Your task to perform on an android device: turn off smart reply in the gmail app Image 0: 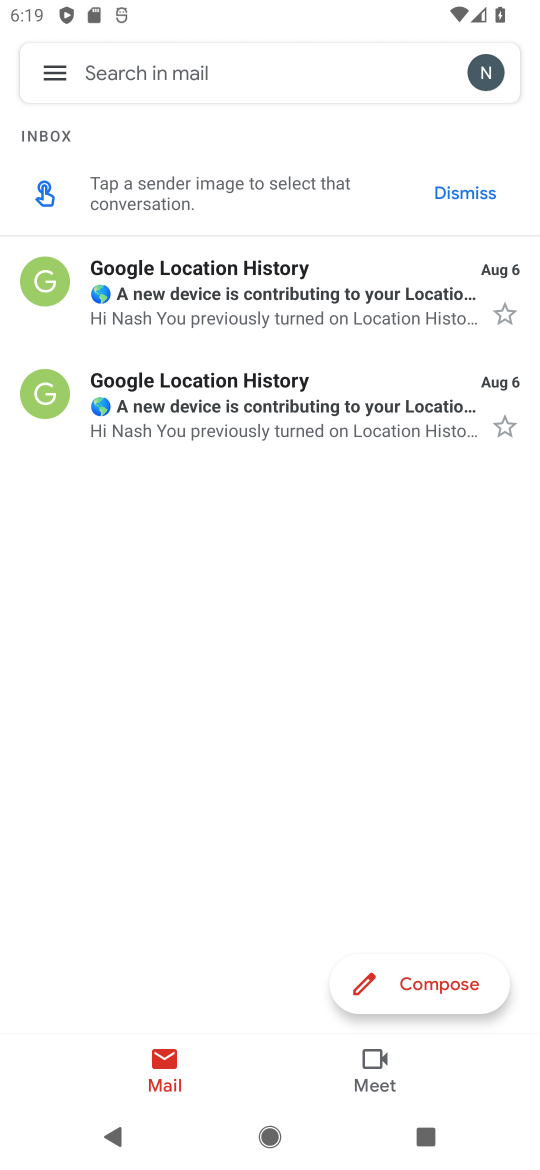
Step 0: press home button
Your task to perform on an android device: turn off smart reply in the gmail app Image 1: 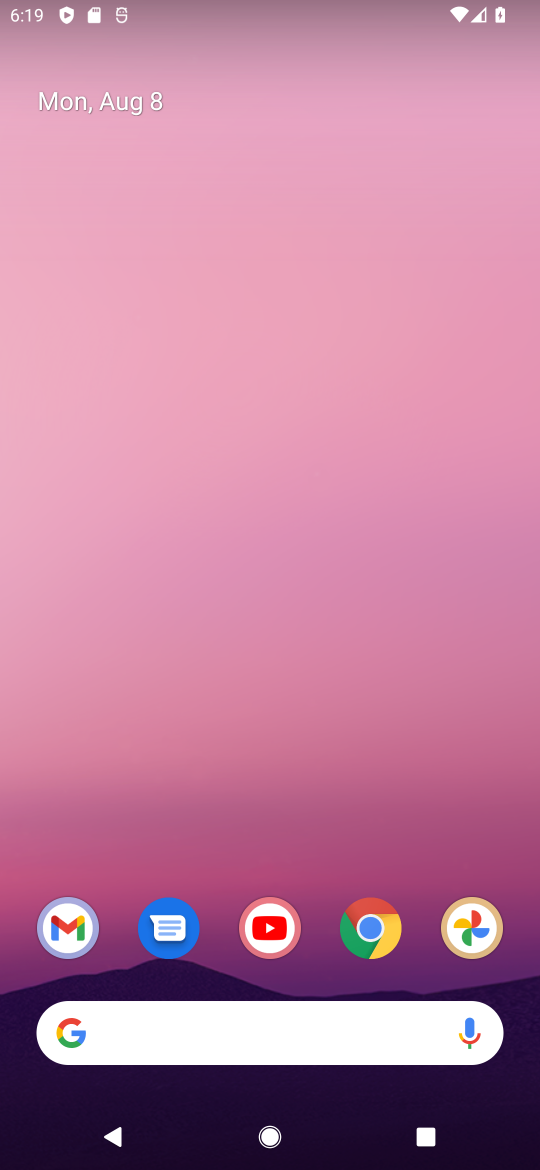
Step 1: click (60, 948)
Your task to perform on an android device: turn off smart reply in the gmail app Image 2: 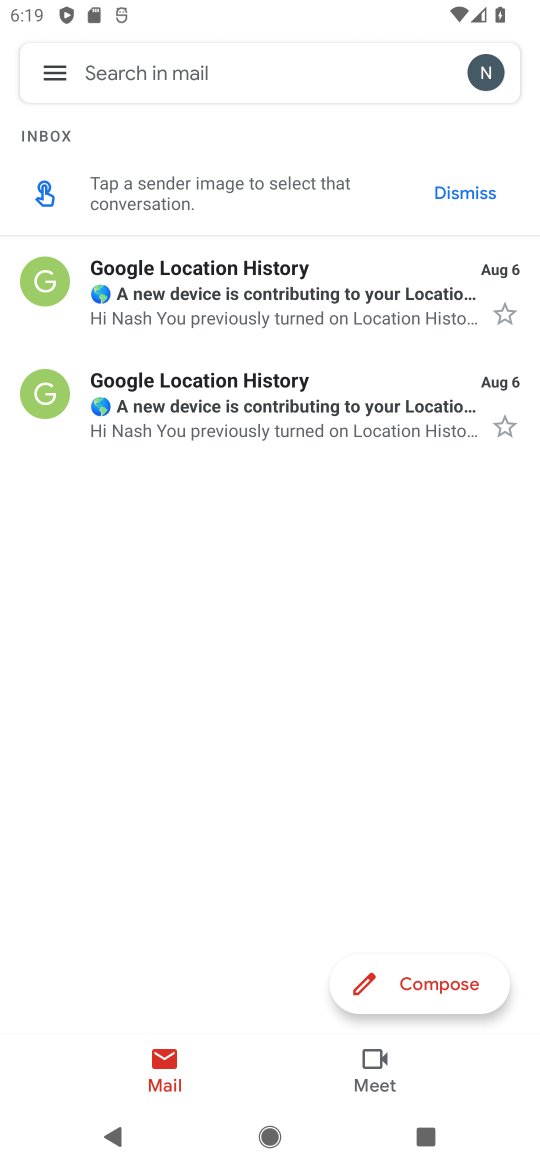
Step 2: click (52, 63)
Your task to perform on an android device: turn off smart reply in the gmail app Image 3: 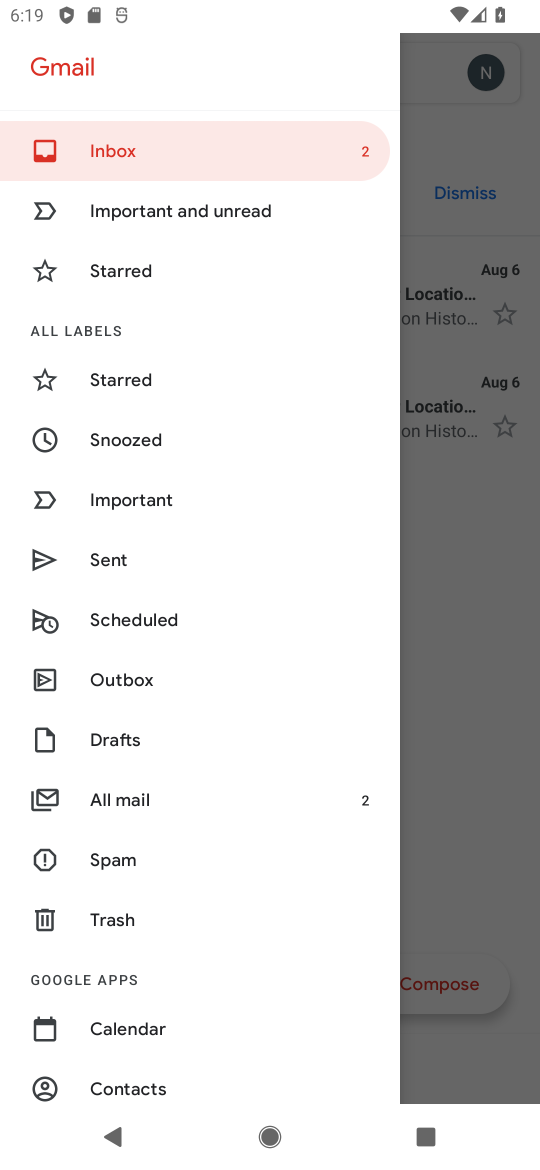
Step 3: drag from (172, 943) to (197, 658)
Your task to perform on an android device: turn off smart reply in the gmail app Image 4: 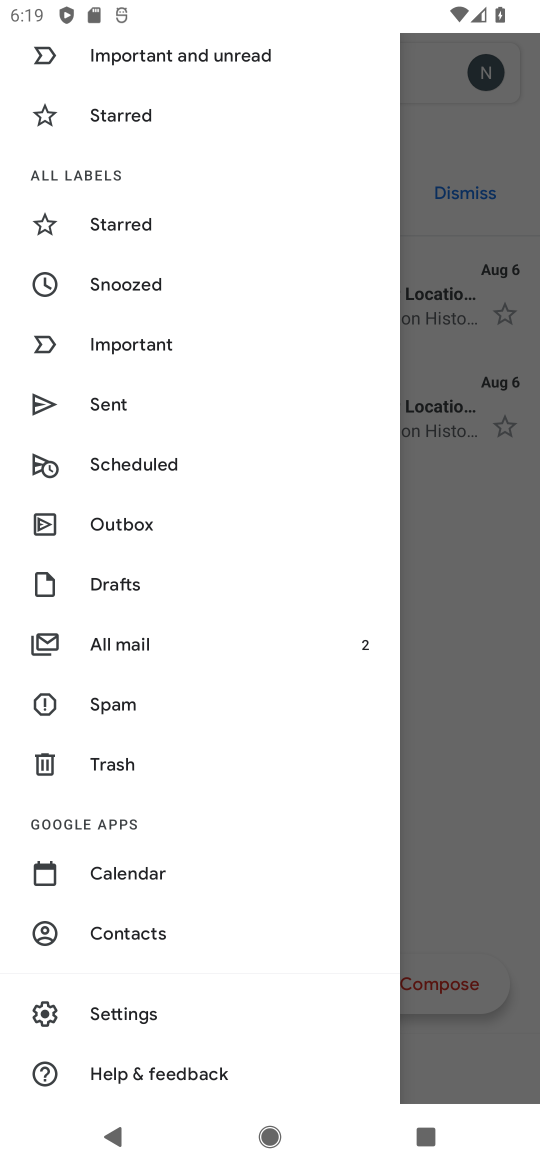
Step 4: click (123, 1006)
Your task to perform on an android device: turn off smart reply in the gmail app Image 5: 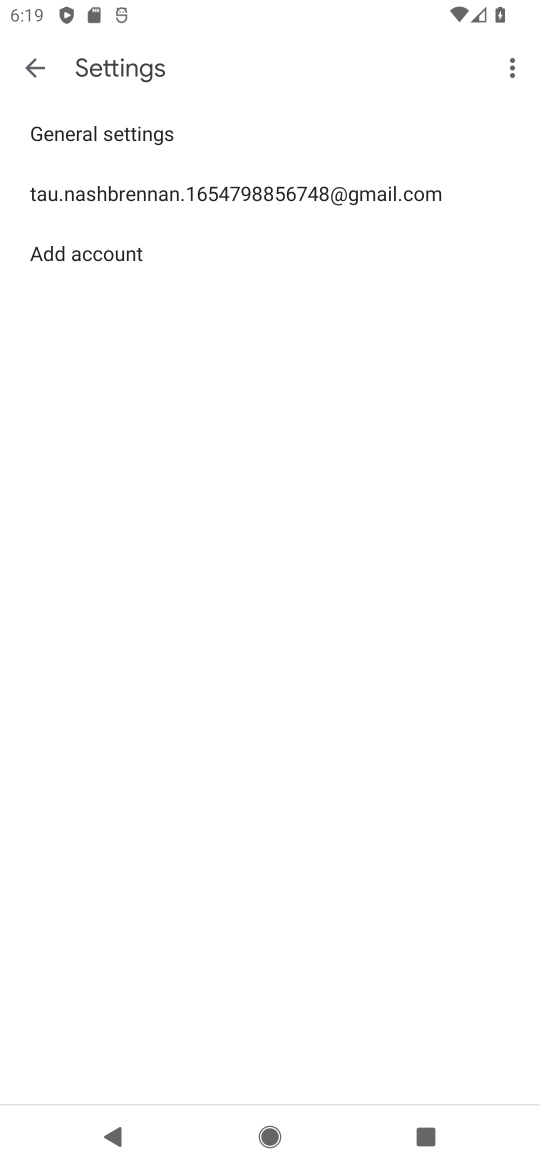
Step 5: click (213, 202)
Your task to perform on an android device: turn off smart reply in the gmail app Image 6: 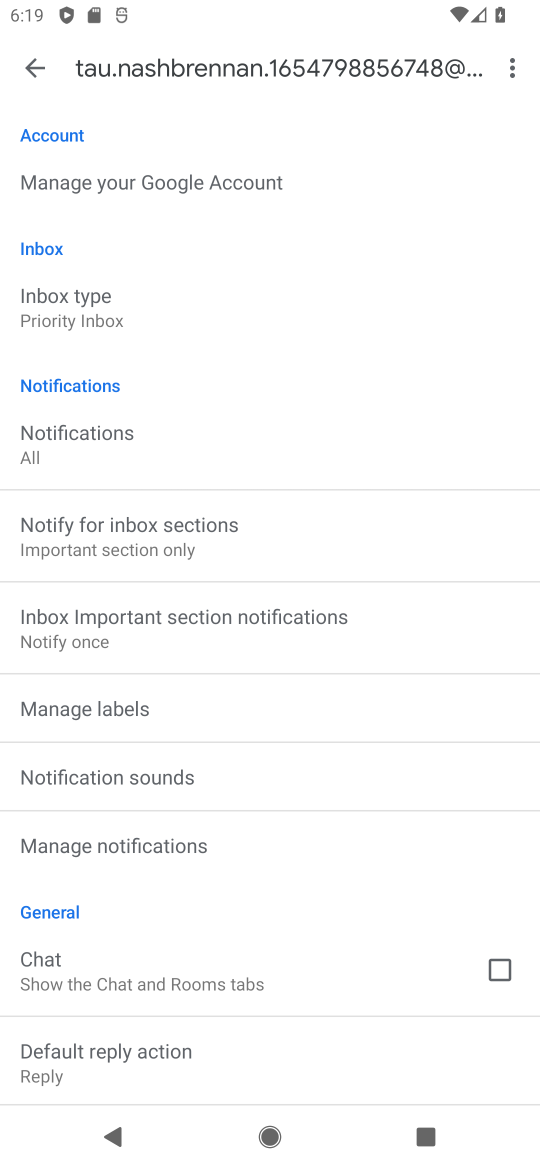
Step 6: drag from (296, 904) to (277, 538)
Your task to perform on an android device: turn off smart reply in the gmail app Image 7: 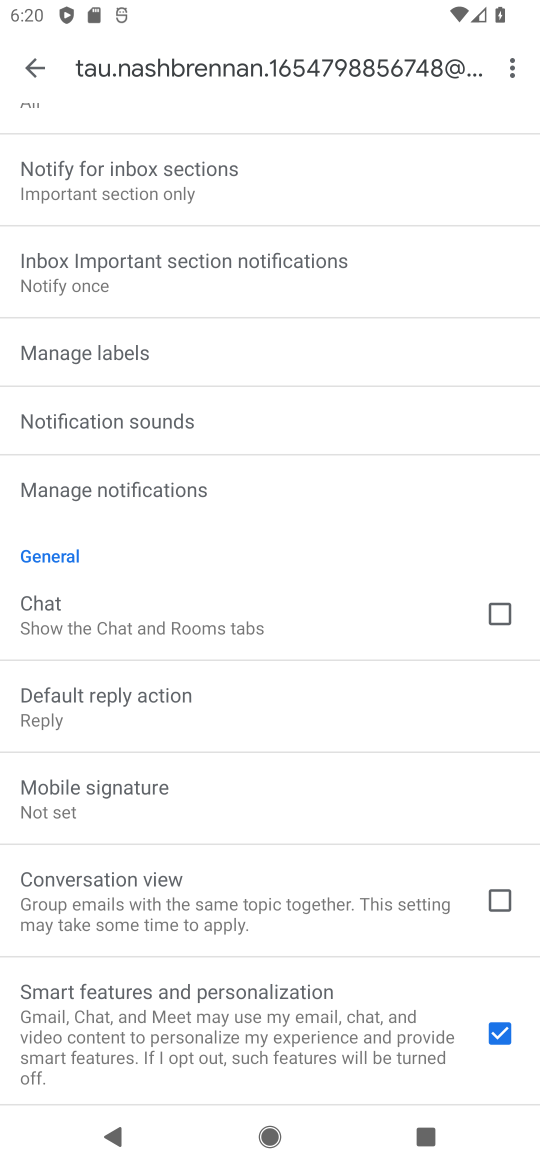
Step 7: drag from (326, 1126) to (423, 813)
Your task to perform on an android device: turn off smart reply in the gmail app Image 8: 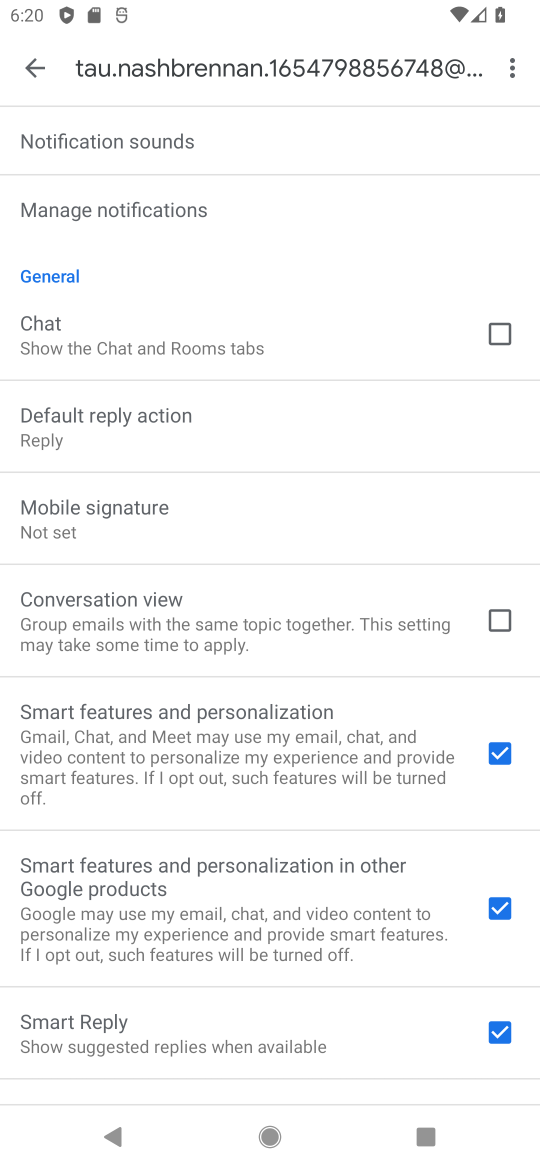
Step 8: click (496, 1029)
Your task to perform on an android device: turn off smart reply in the gmail app Image 9: 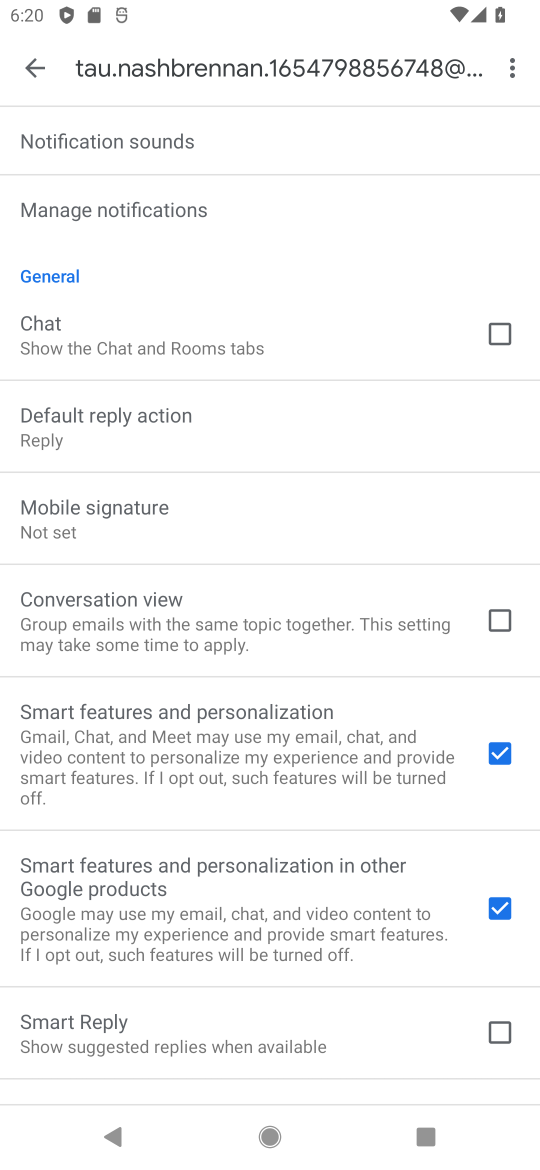
Step 9: task complete